Your task to perform on an android device: Go to wifi settings Image 0: 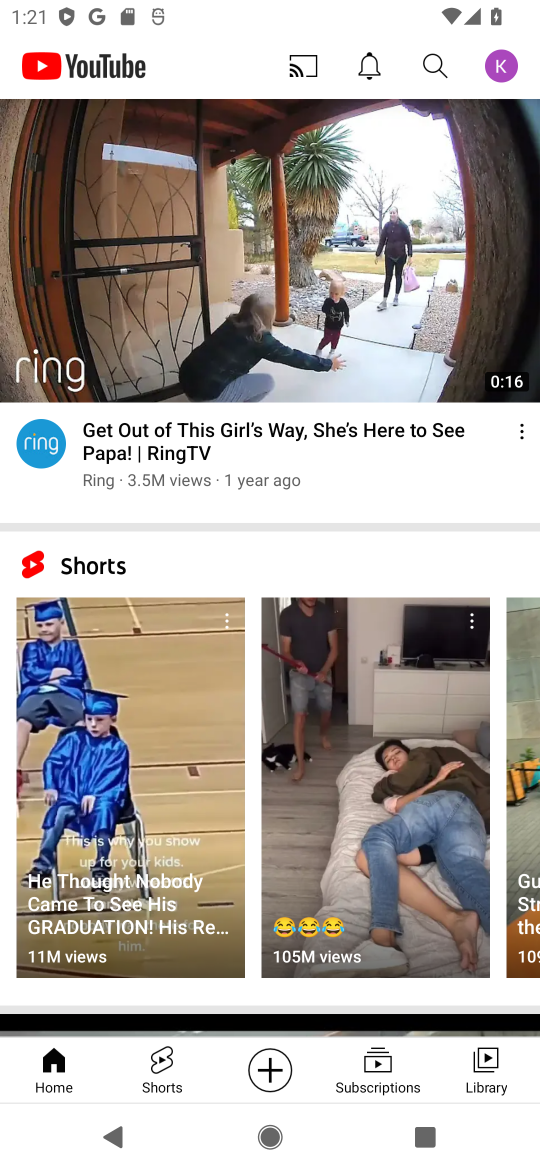
Step 0: press home button
Your task to perform on an android device: Go to wifi settings Image 1: 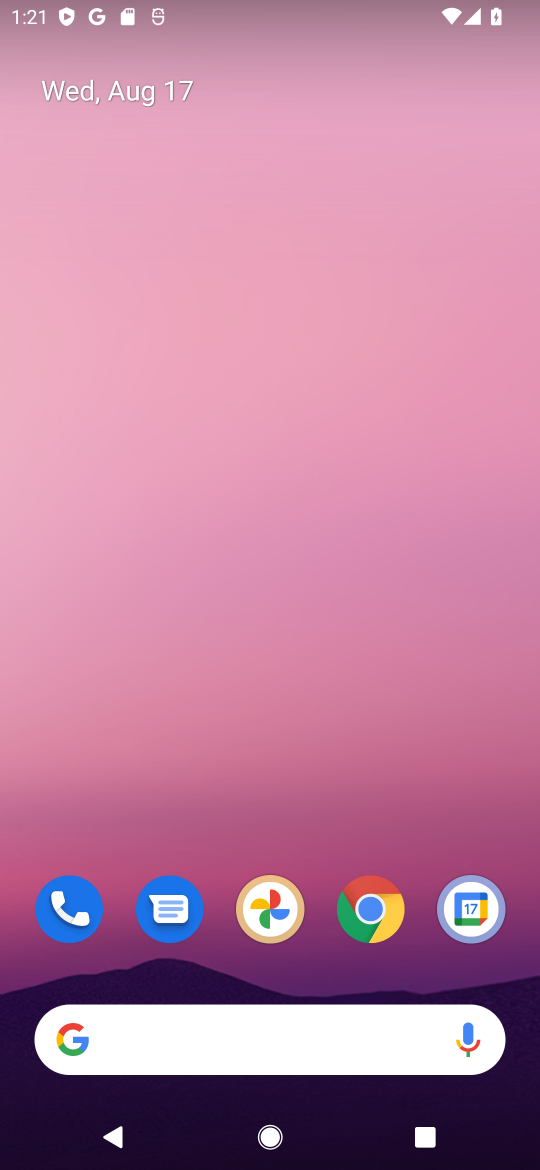
Step 1: drag from (301, 734) to (177, 35)
Your task to perform on an android device: Go to wifi settings Image 2: 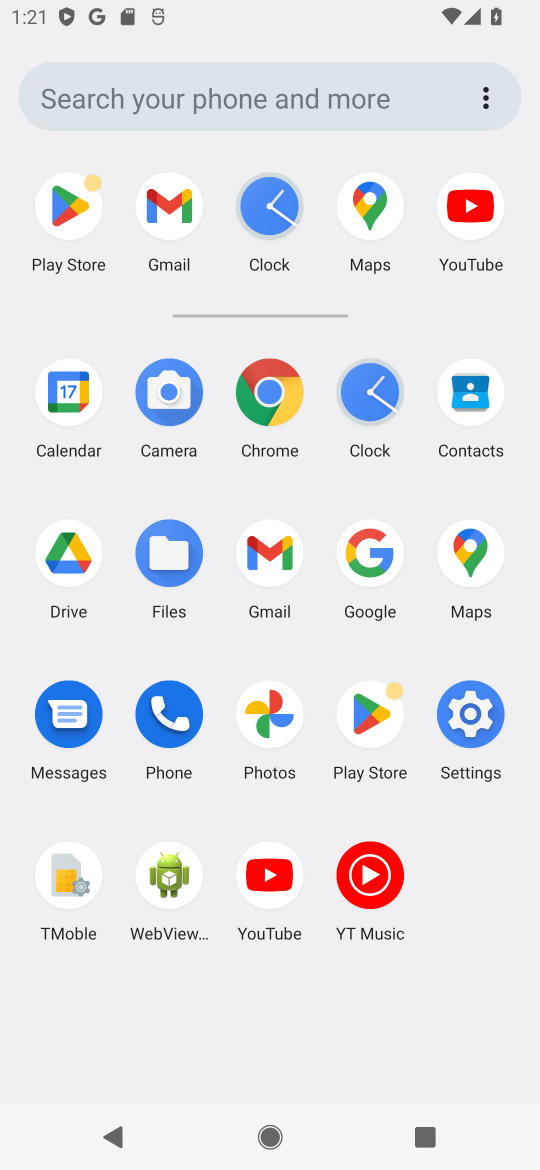
Step 2: click (460, 705)
Your task to perform on an android device: Go to wifi settings Image 3: 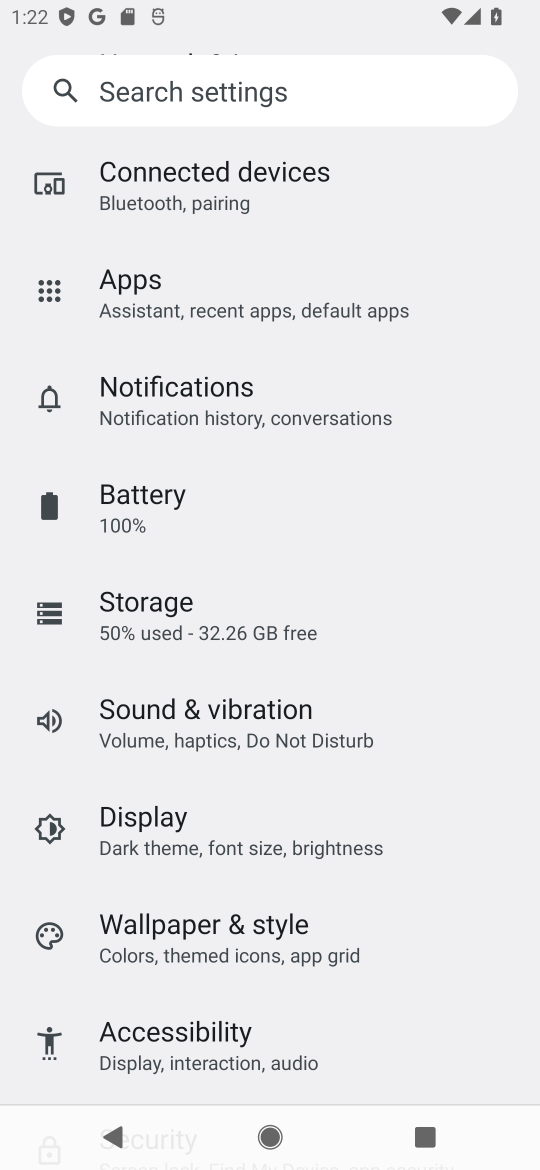
Step 3: drag from (347, 198) to (278, 940)
Your task to perform on an android device: Go to wifi settings Image 4: 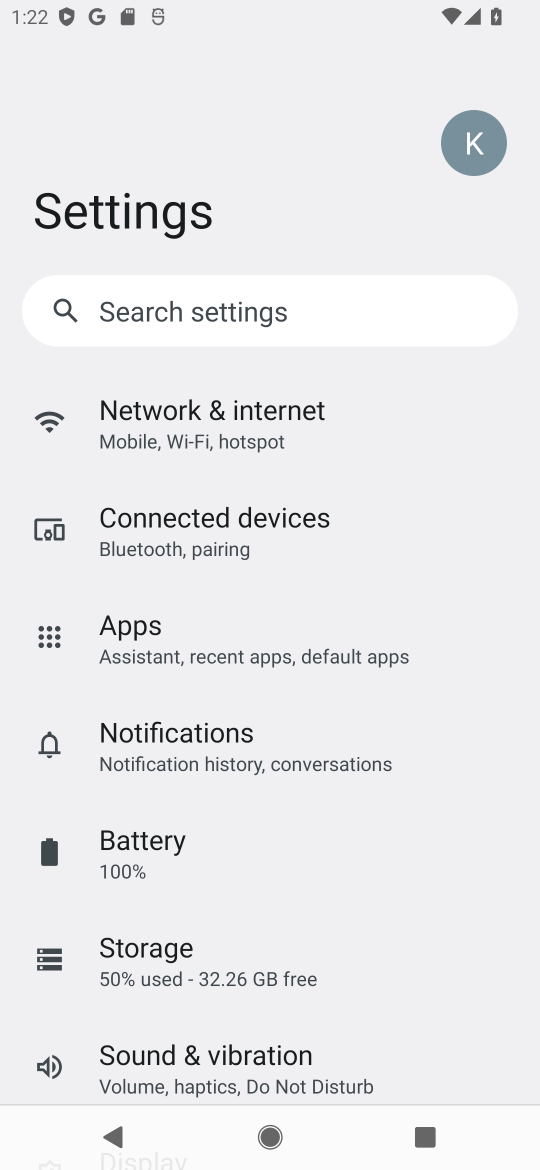
Step 4: click (202, 417)
Your task to perform on an android device: Go to wifi settings Image 5: 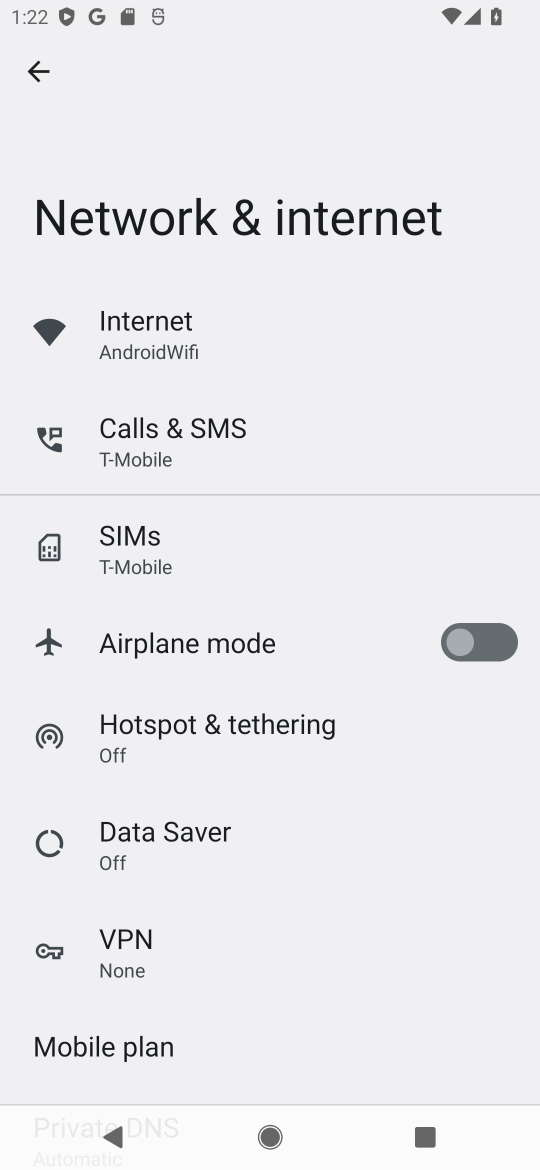
Step 5: click (145, 322)
Your task to perform on an android device: Go to wifi settings Image 6: 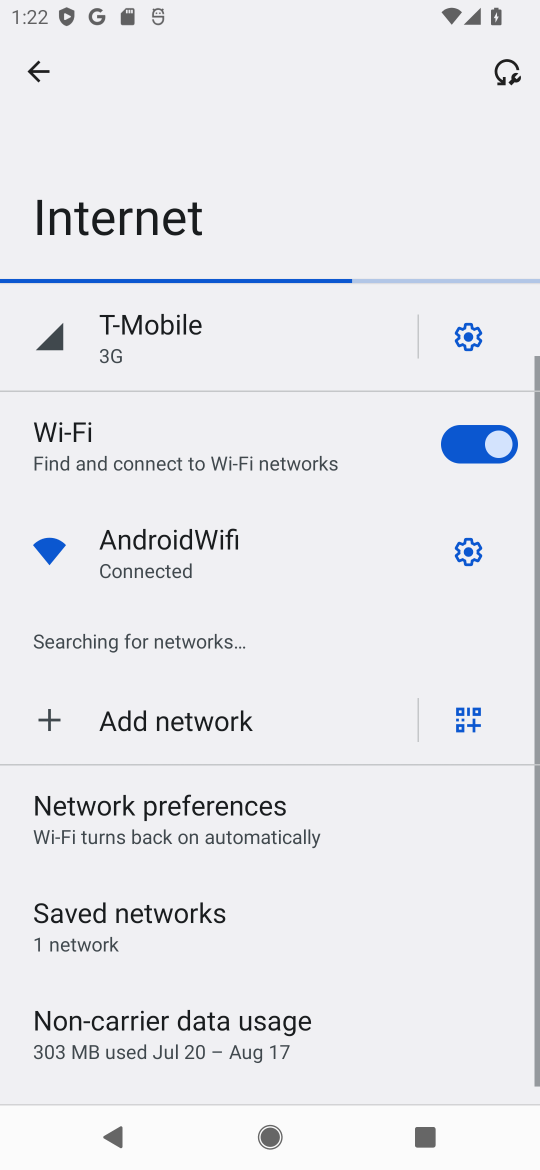
Step 6: task complete